Your task to perform on an android device: Open calendar and show me the second week of next month Image 0: 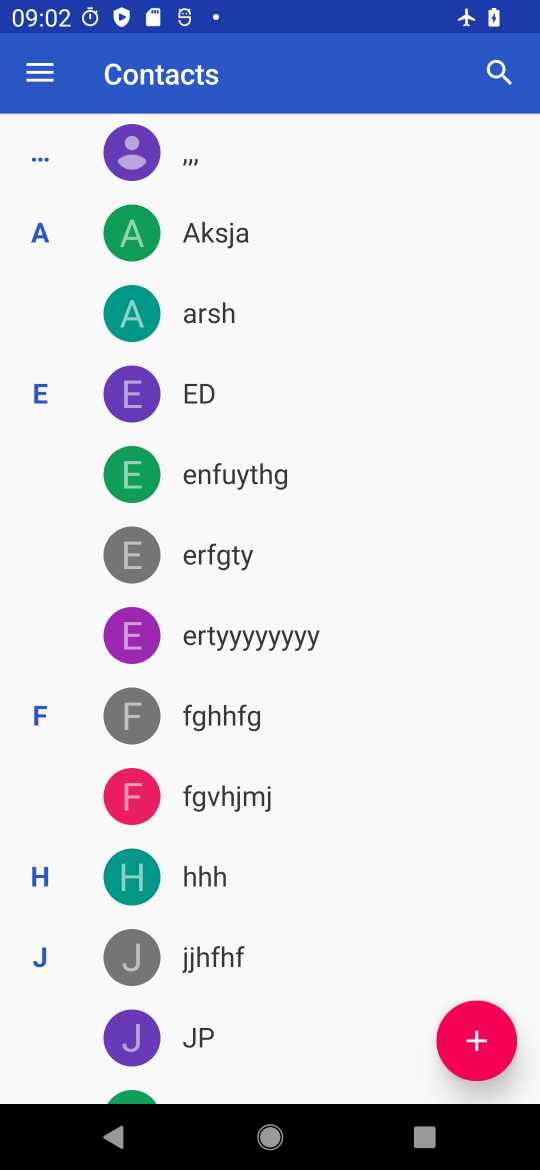
Step 0: press home button
Your task to perform on an android device: Open calendar and show me the second week of next month Image 1: 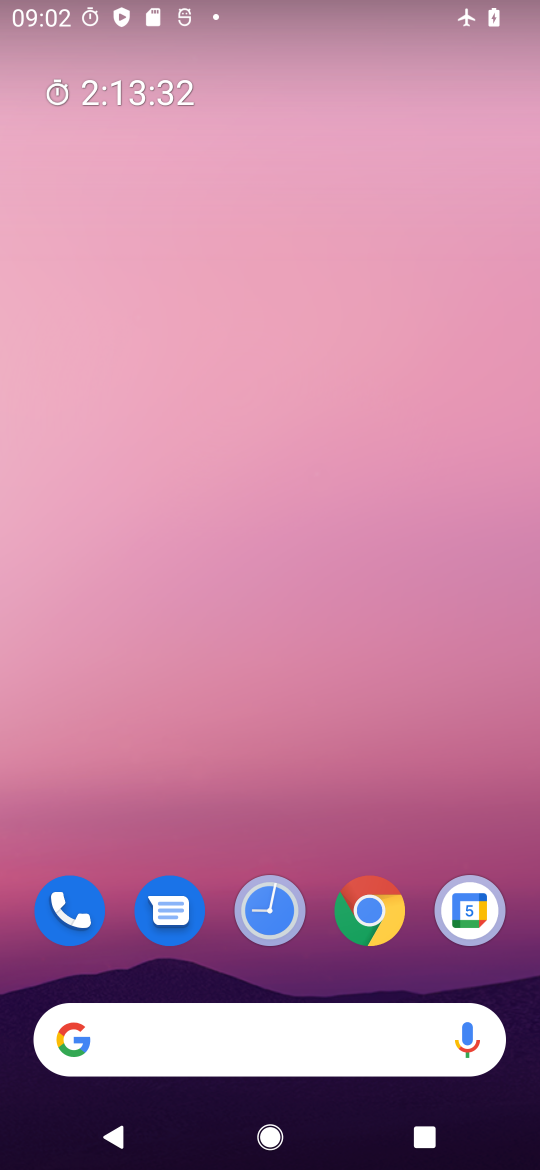
Step 1: click (398, 1018)
Your task to perform on an android device: Open calendar and show me the second week of next month Image 2: 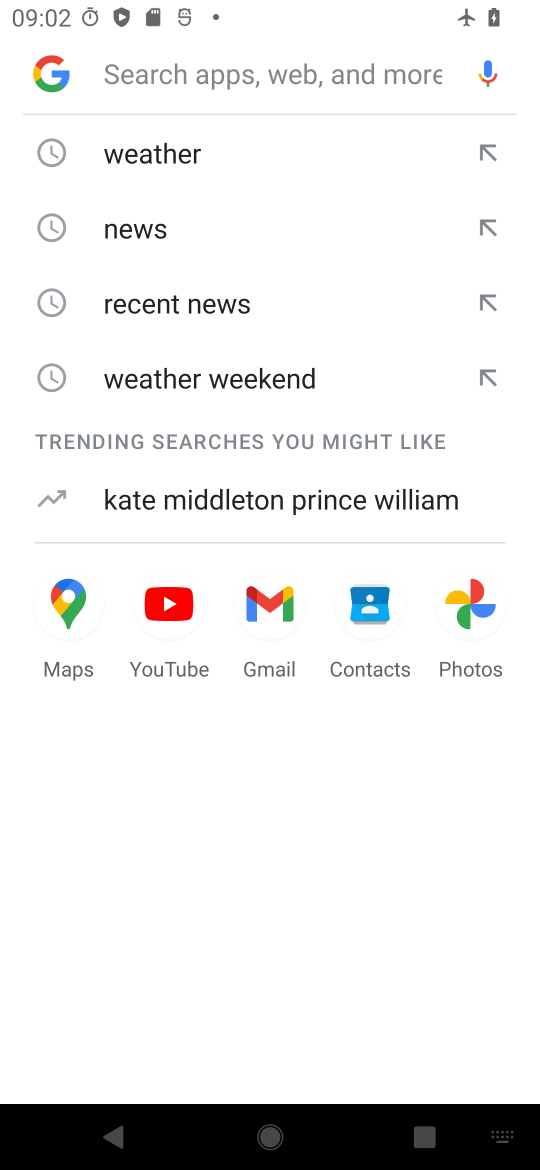
Step 2: press home button
Your task to perform on an android device: Open calendar and show me the second week of next month Image 3: 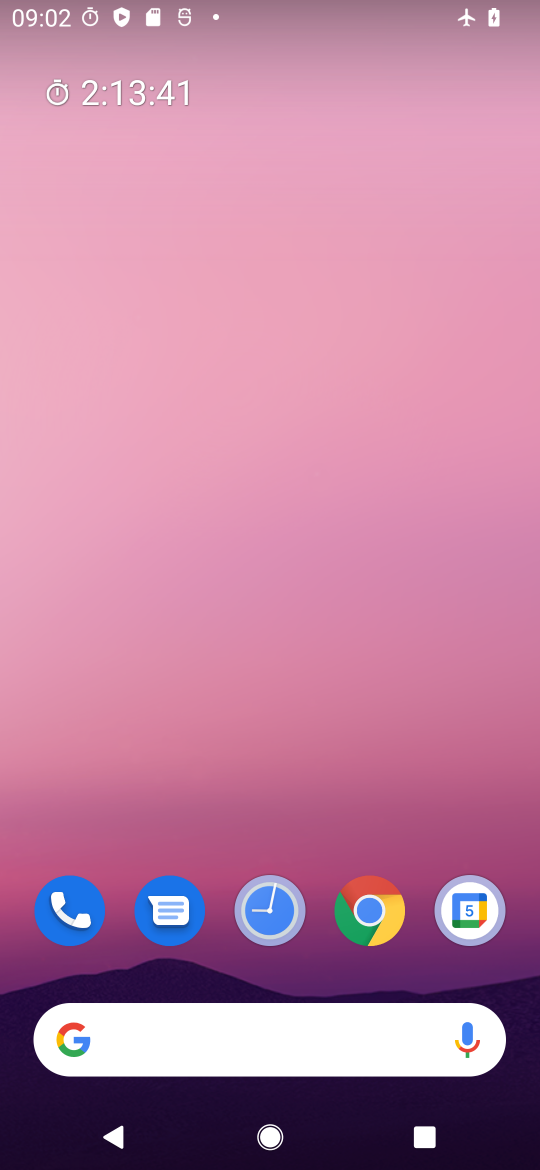
Step 3: drag from (235, 1050) to (142, 223)
Your task to perform on an android device: Open calendar and show me the second week of next month Image 4: 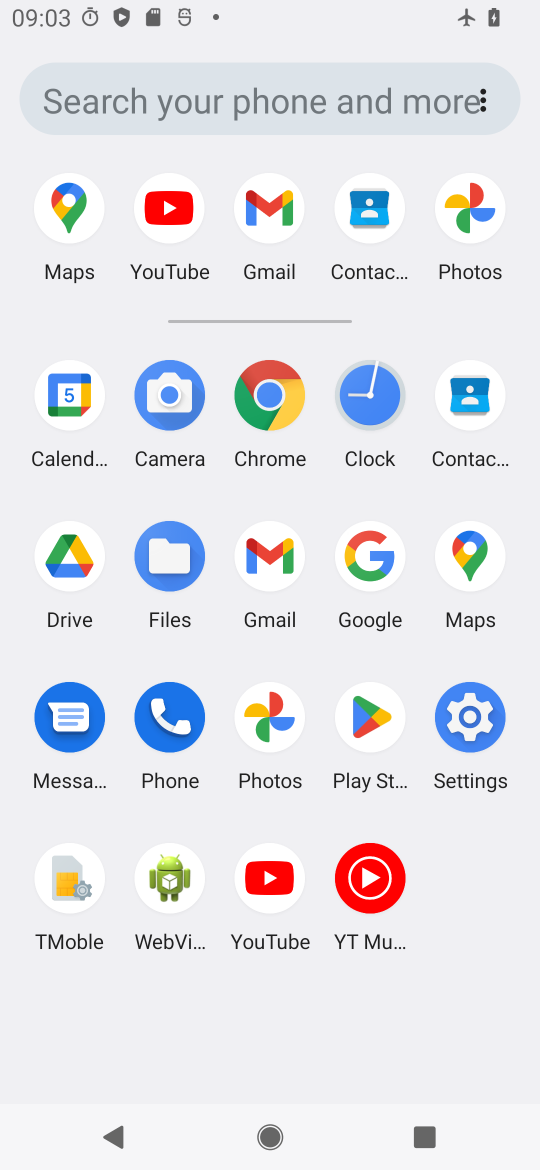
Step 4: click (57, 379)
Your task to perform on an android device: Open calendar and show me the second week of next month Image 5: 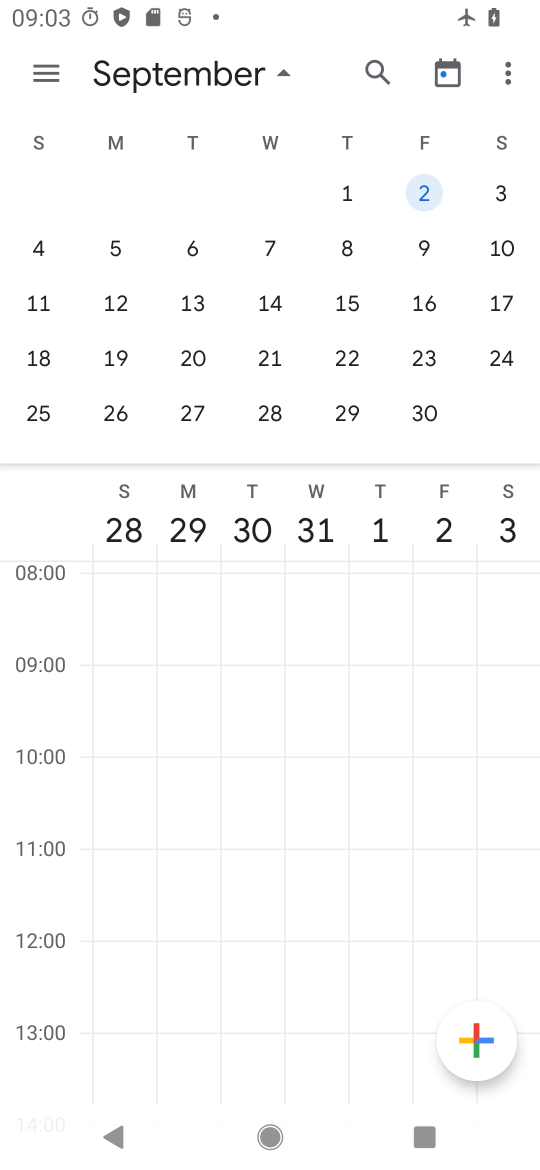
Step 5: click (334, 245)
Your task to perform on an android device: Open calendar and show me the second week of next month Image 6: 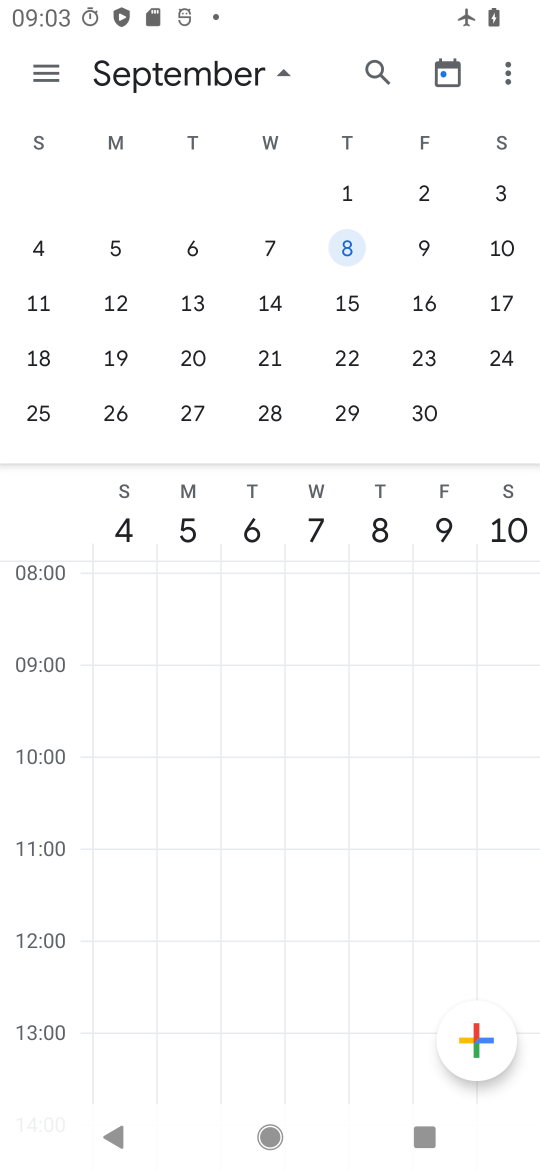
Step 6: task complete